Your task to perform on an android device: Add "logitech g pro" to the cart on target, then select checkout. Image 0: 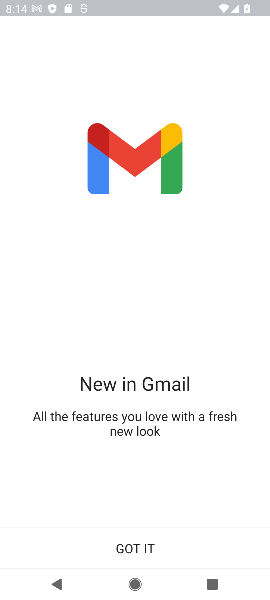
Step 0: click (149, 542)
Your task to perform on an android device: Add "logitech g pro" to the cart on target, then select checkout. Image 1: 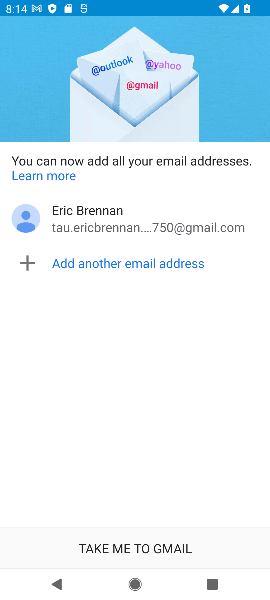
Step 1: press home button
Your task to perform on an android device: Add "logitech g pro" to the cart on target, then select checkout. Image 2: 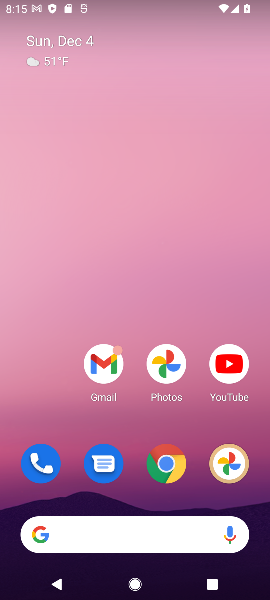
Step 2: click (131, 522)
Your task to perform on an android device: Add "logitech g pro" to the cart on target, then select checkout. Image 3: 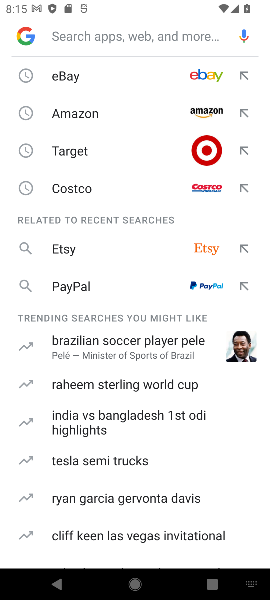
Step 3: click (83, 149)
Your task to perform on an android device: Add "logitech g pro" to the cart on target, then select checkout. Image 4: 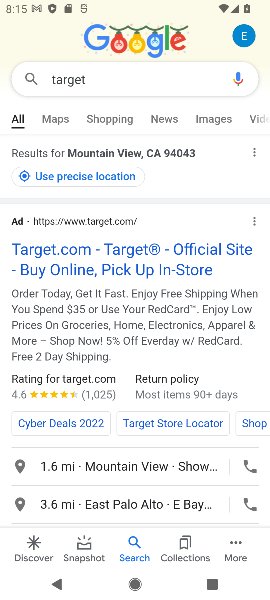
Step 4: click (56, 248)
Your task to perform on an android device: Add "logitech g pro" to the cart on target, then select checkout. Image 5: 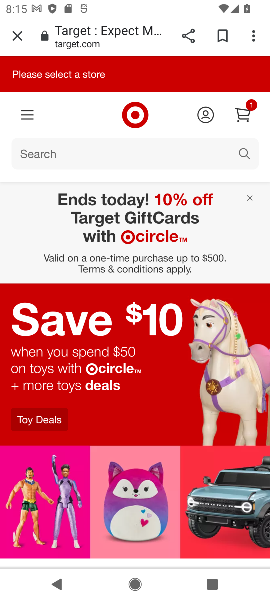
Step 5: task complete